Your task to perform on an android device: all mails in gmail Image 0: 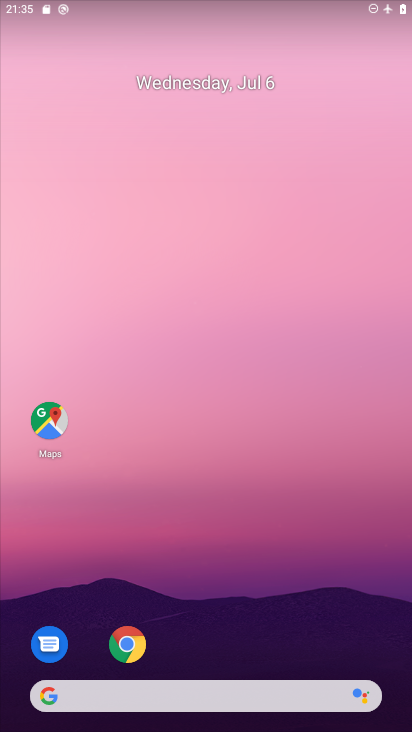
Step 0: drag from (223, 653) to (207, 180)
Your task to perform on an android device: all mails in gmail Image 1: 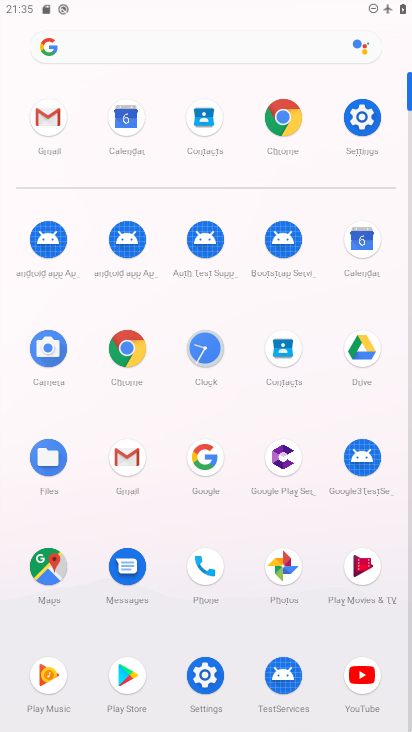
Step 1: click (59, 110)
Your task to perform on an android device: all mails in gmail Image 2: 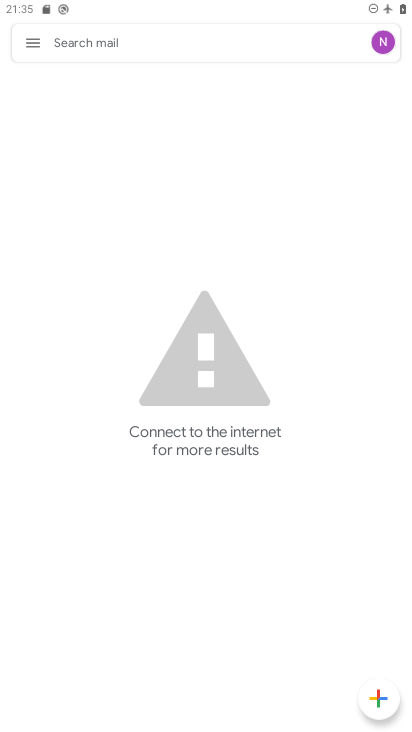
Step 2: click (28, 42)
Your task to perform on an android device: all mails in gmail Image 3: 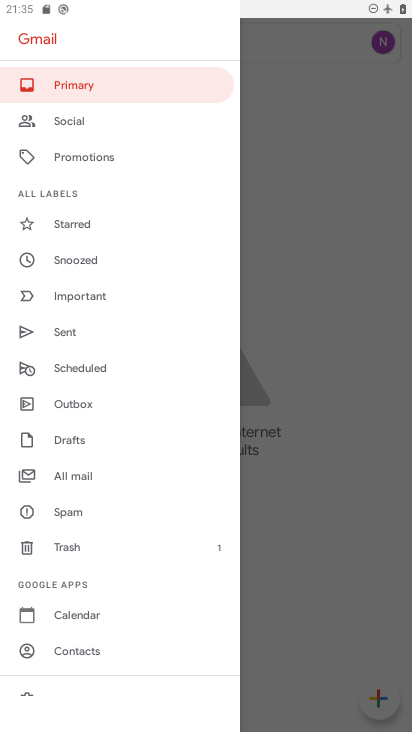
Step 3: click (85, 473)
Your task to perform on an android device: all mails in gmail Image 4: 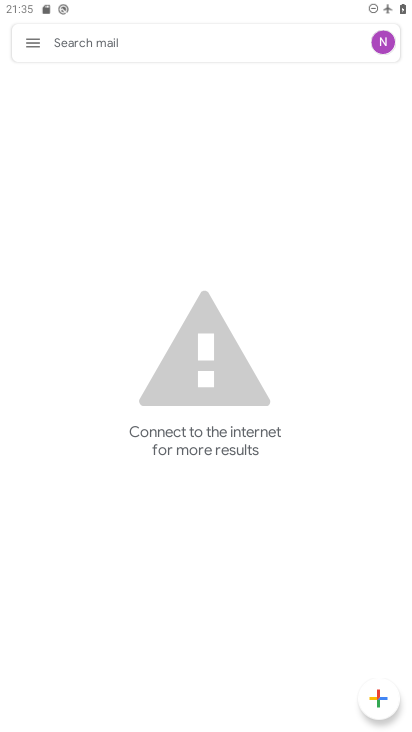
Step 4: task complete